Your task to perform on an android device: Open my contact list Image 0: 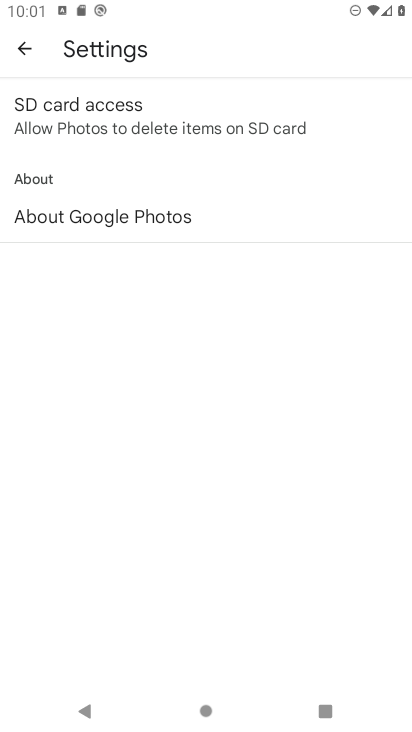
Step 0: press home button
Your task to perform on an android device: Open my contact list Image 1: 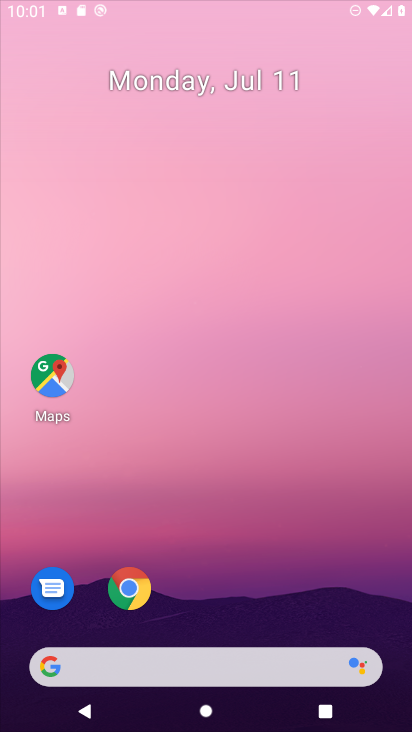
Step 1: drag from (349, 642) to (141, 123)
Your task to perform on an android device: Open my contact list Image 2: 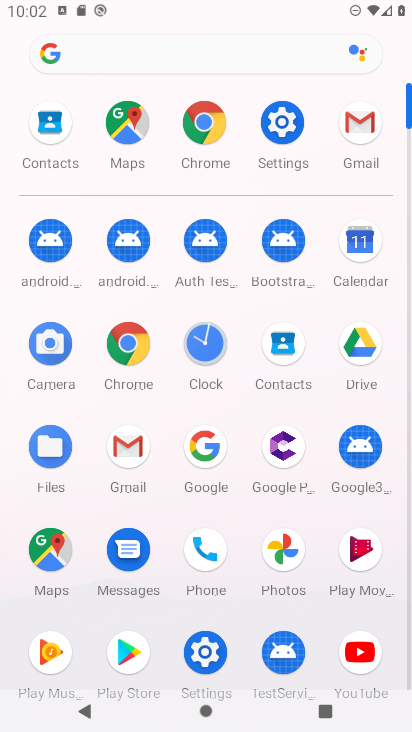
Step 2: click (272, 353)
Your task to perform on an android device: Open my contact list Image 3: 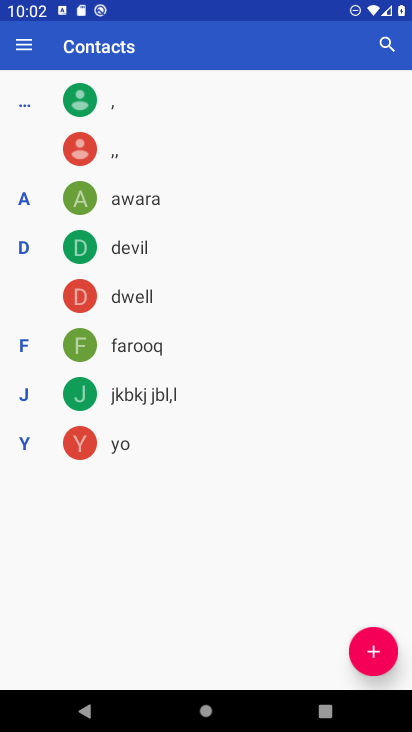
Step 3: task complete